Your task to perform on an android device: Go to Maps Image 0: 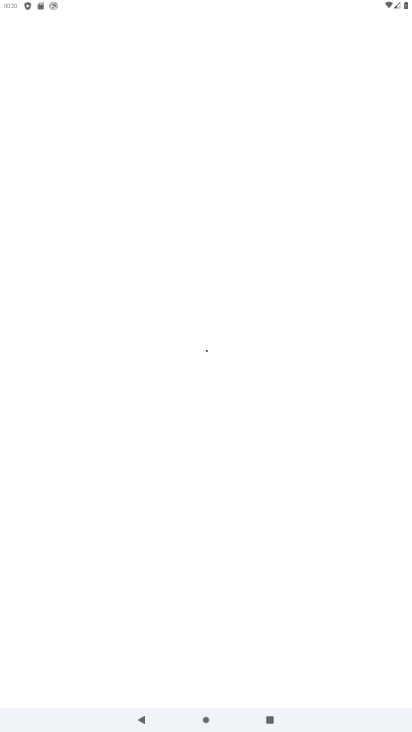
Step 0: drag from (226, 612) to (261, 591)
Your task to perform on an android device: Go to Maps Image 1: 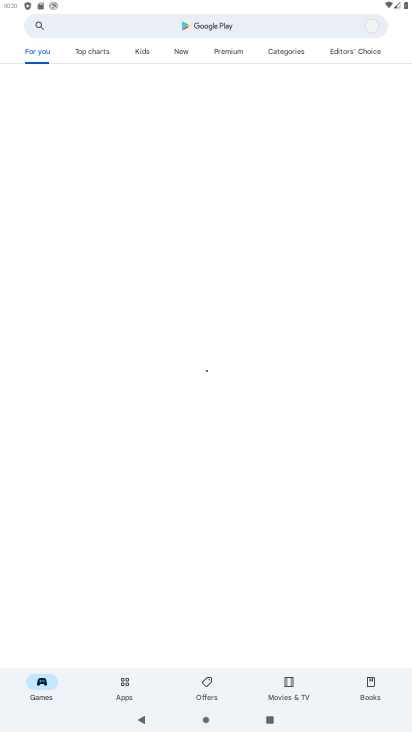
Step 1: press home button
Your task to perform on an android device: Go to Maps Image 2: 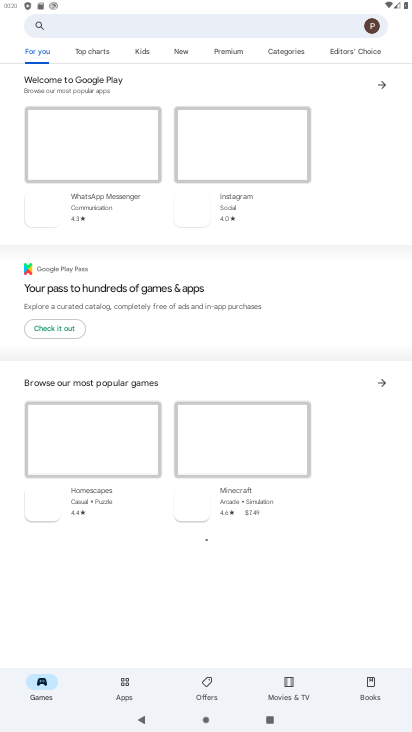
Step 2: drag from (261, 591) to (405, 515)
Your task to perform on an android device: Go to Maps Image 3: 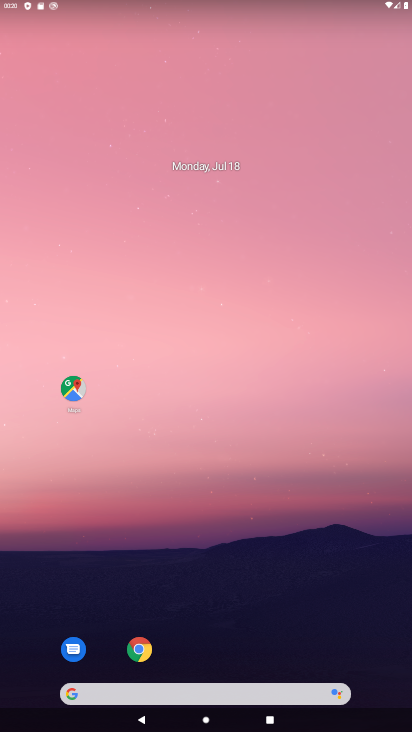
Step 3: click (73, 395)
Your task to perform on an android device: Go to Maps Image 4: 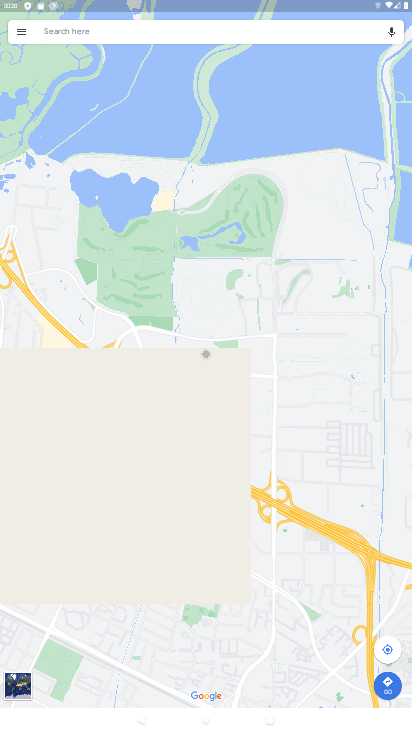
Step 4: task complete